Your task to perform on an android device: Open Wikipedia Image 0: 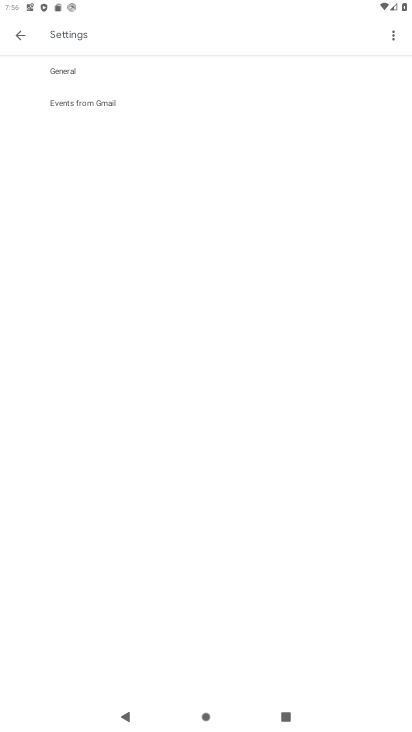
Step 0: press home button
Your task to perform on an android device: Open Wikipedia Image 1: 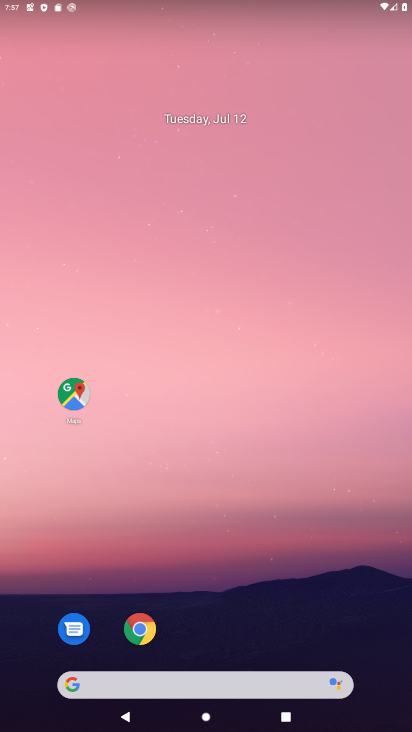
Step 1: drag from (242, 599) to (234, 297)
Your task to perform on an android device: Open Wikipedia Image 2: 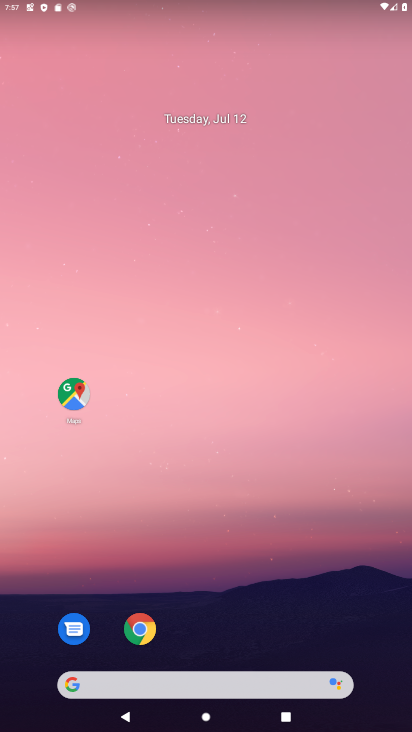
Step 2: click (142, 624)
Your task to perform on an android device: Open Wikipedia Image 3: 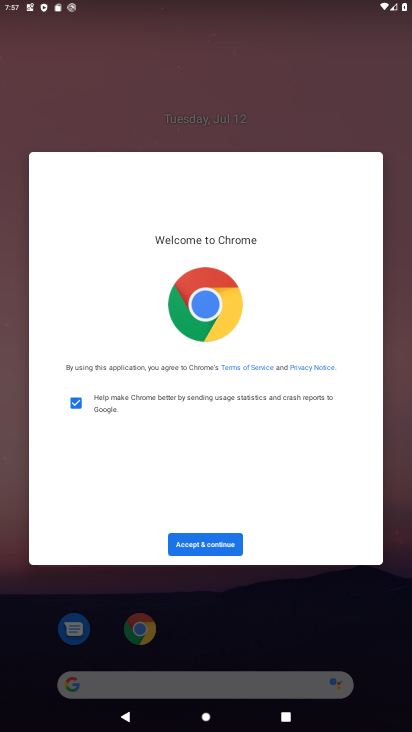
Step 3: click (202, 544)
Your task to perform on an android device: Open Wikipedia Image 4: 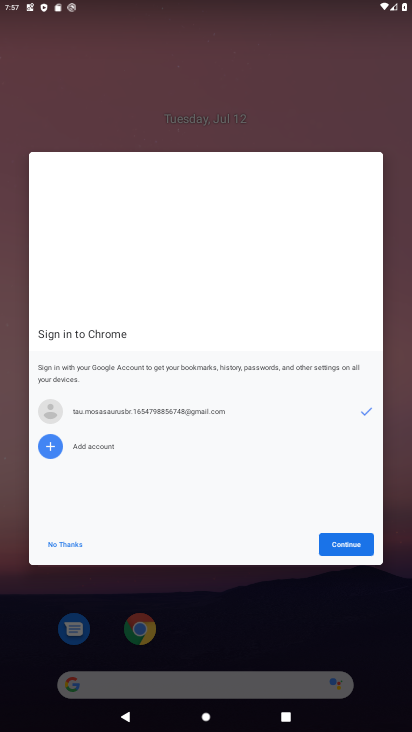
Step 4: click (351, 538)
Your task to perform on an android device: Open Wikipedia Image 5: 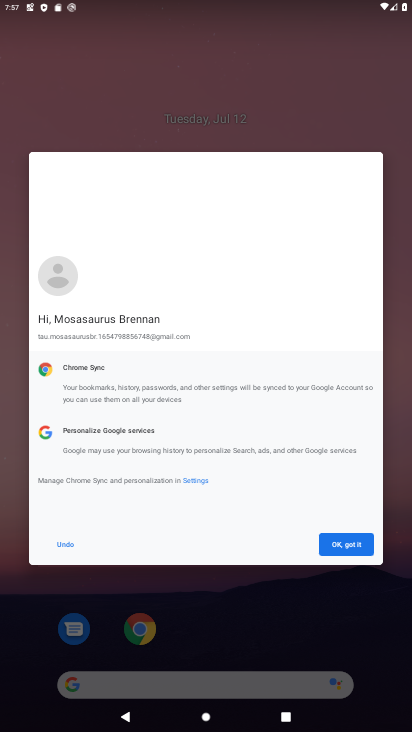
Step 5: click (362, 545)
Your task to perform on an android device: Open Wikipedia Image 6: 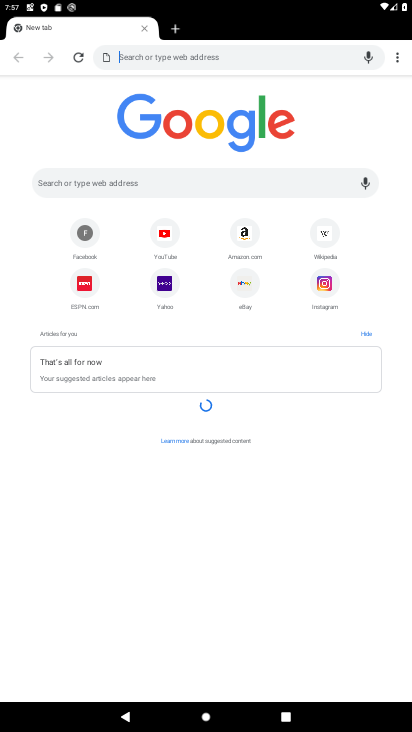
Step 6: click (316, 227)
Your task to perform on an android device: Open Wikipedia Image 7: 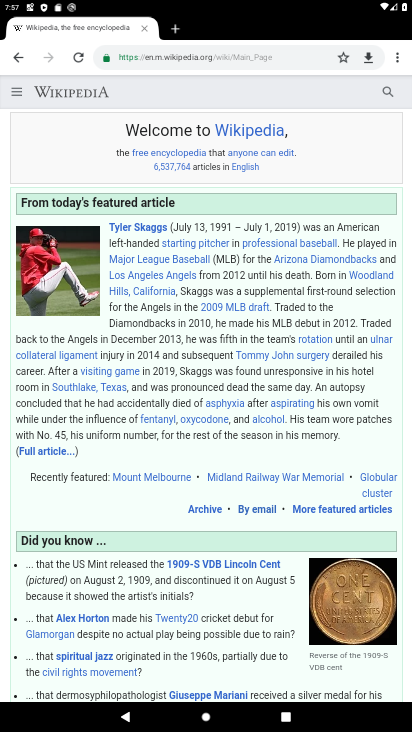
Step 7: task complete